Your task to perform on an android device: add a contact Image 0: 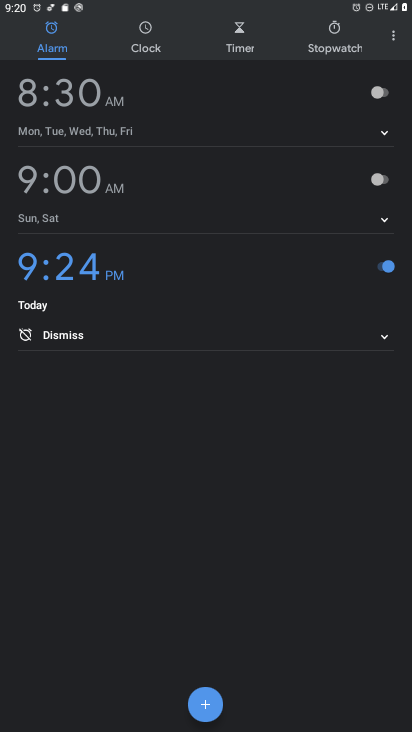
Step 0: press home button
Your task to perform on an android device: add a contact Image 1: 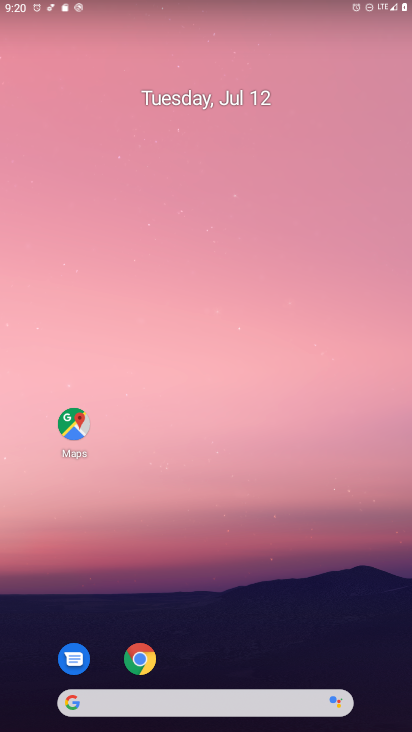
Step 1: drag from (181, 705) to (260, 169)
Your task to perform on an android device: add a contact Image 2: 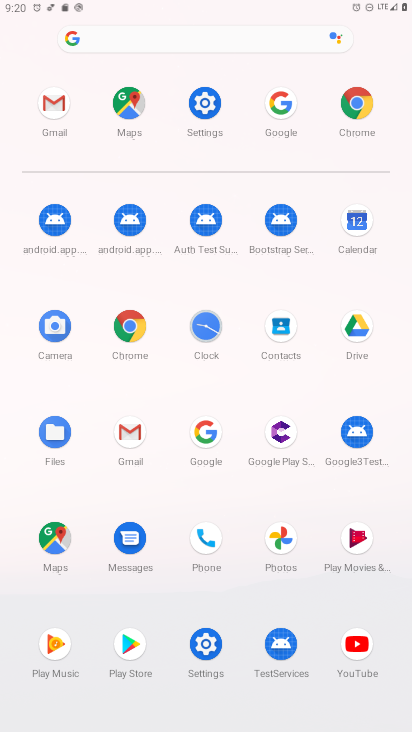
Step 2: click (279, 327)
Your task to perform on an android device: add a contact Image 3: 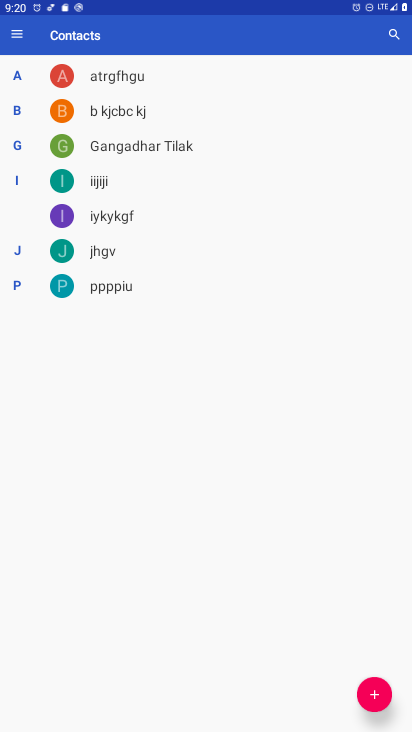
Step 3: click (375, 694)
Your task to perform on an android device: add a contact Image 4: 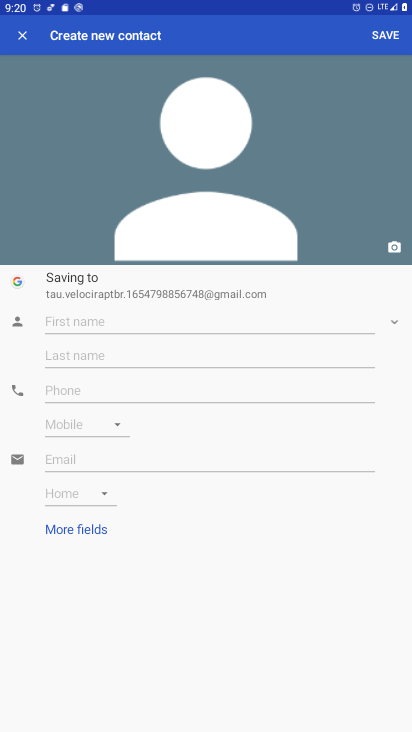
Step 4: click (217, 322)
Your task to perform on an android device: add a contact Image 5: 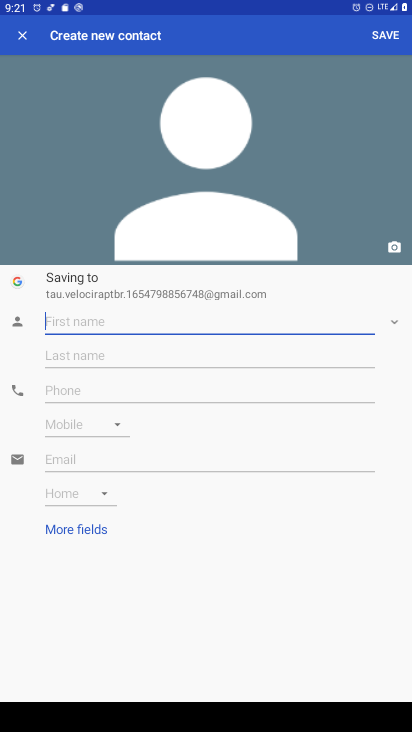
Step 5: type "Chandrapratap"
Your task to perform on an android device: add a contact Image 6: 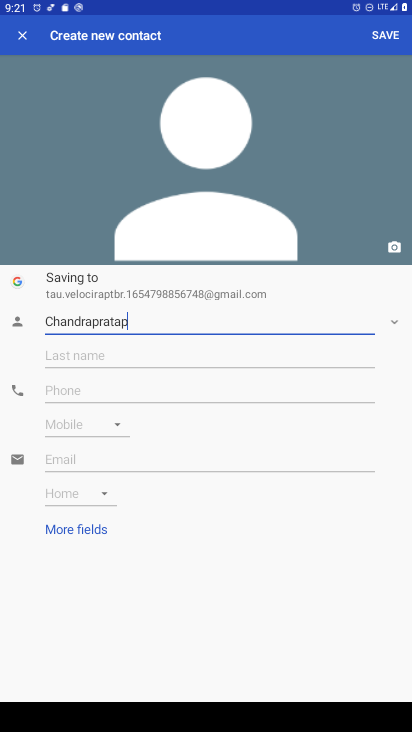
Step 6: click (105, 354)
Your task to perform on an android device: add a contact Image 7: 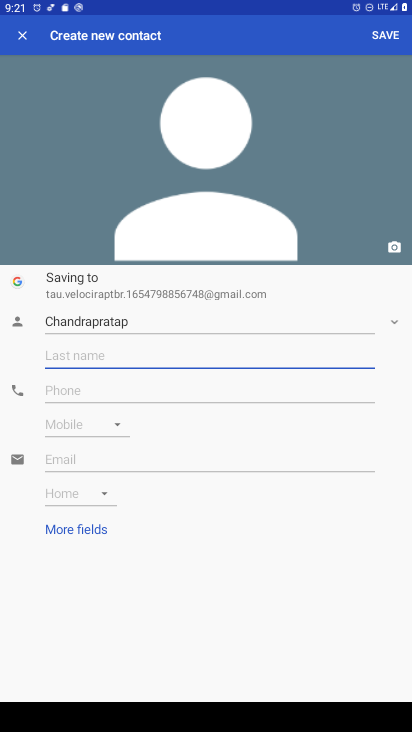
Step 7: type "Tanwar"
Your task to perform on an android device: add a contact Image 8: 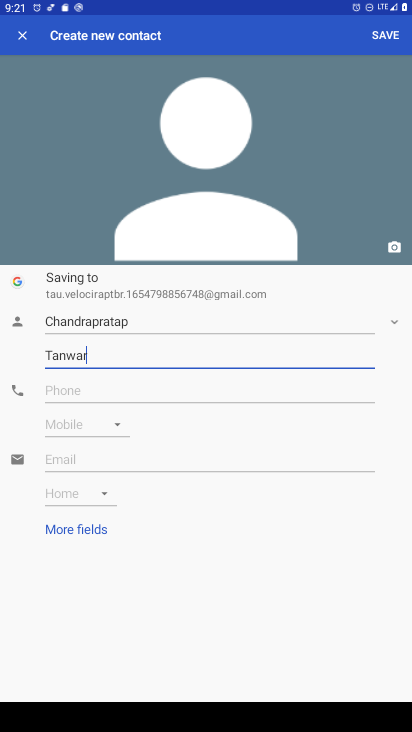
Step 8: click (294, 384)
Your task to perform on an android device: add a contact Image 9: 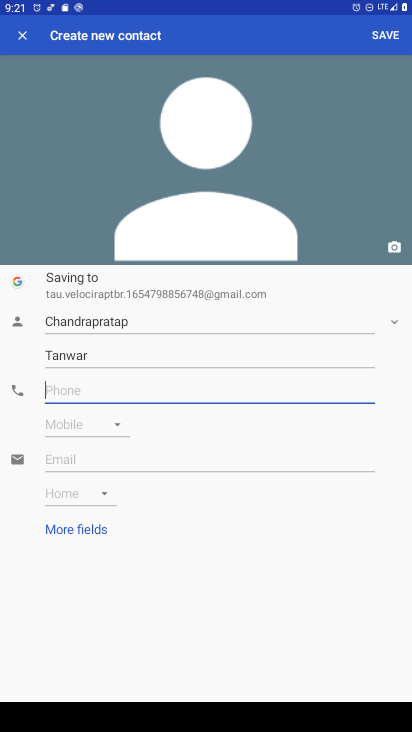
Step 9: type "09876567895"
Your task to perform on an android device: add a contact Image 10: 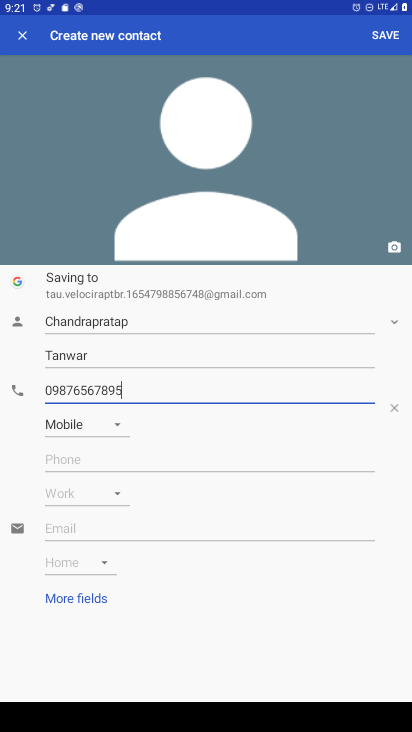
Step 10: click (381, 33)
Your task to perform on an android device: add a contact Image 11: 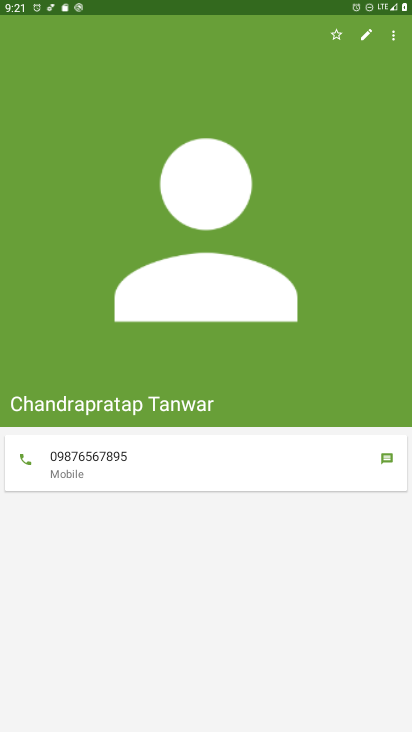
Step 11: task complete